Your task to perform on an android device: Clear the shopping cart on newegg. Add "macbook air" to the cart on newegg Image 0: 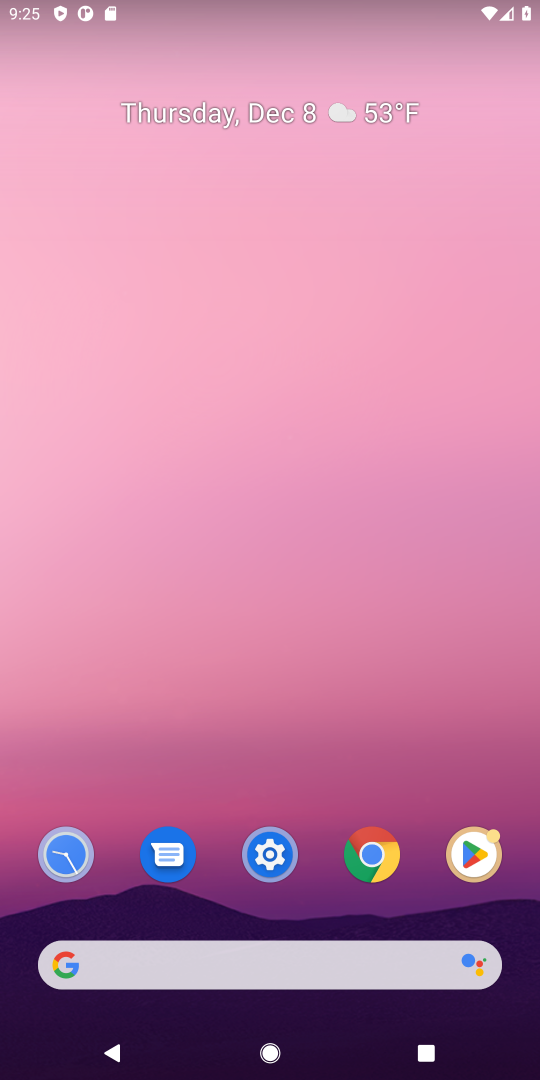
Step 0: press home button
Your task to perform on an android device: Clear the shopping cart on newegg. Add "macbook air" to the cart on newegg Image 1: 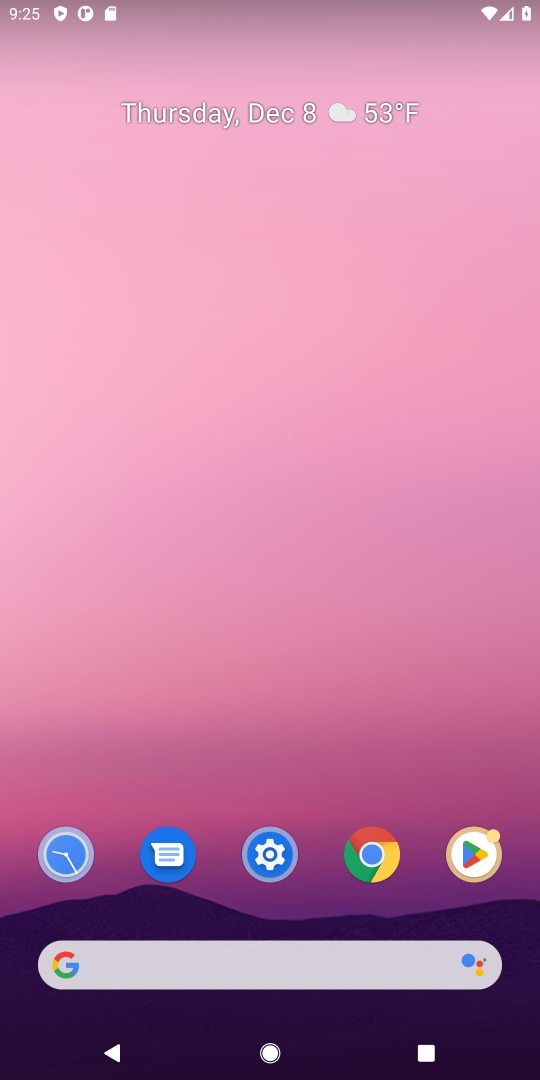
Step 1: click (107, 965)
Your task to perform on an android device: Clear the shopping cart on newegg. Add "macbook air" to the cart on newegg Image 2: 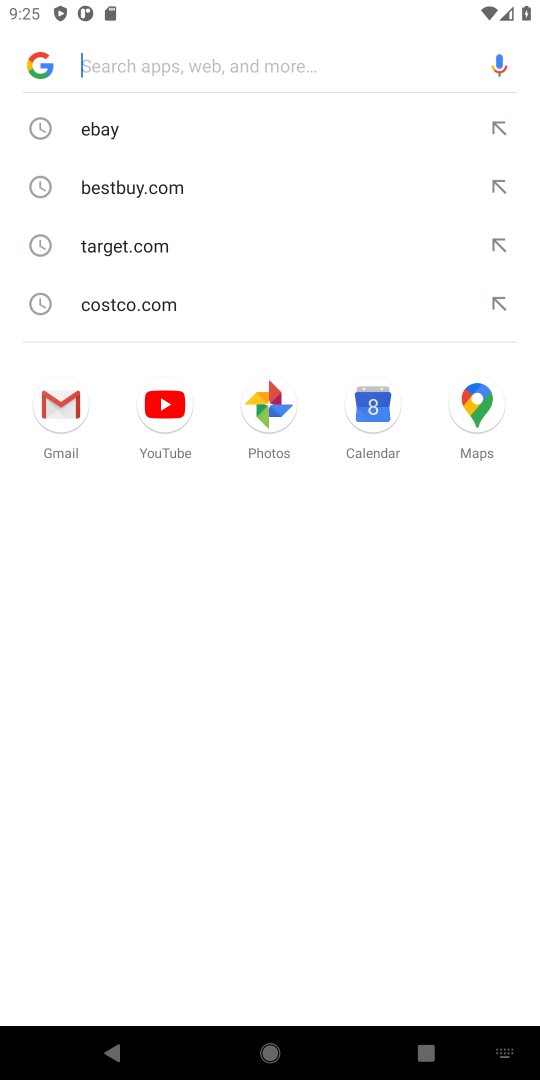
Step 2: type "newegg"
Your task to perform on an android device: Clear the shopping cart on newegg. Add "macbook air" to the cart on newegg Image 3: 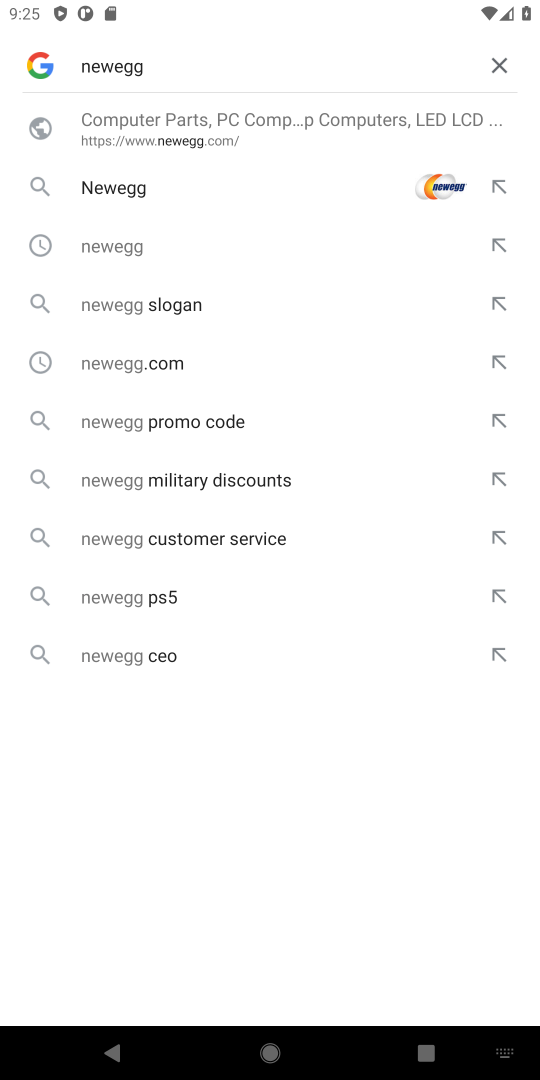
Step 3: press enter
Your task to perform on an android device: Clear the shopping cart on newegg. Add "macbook air" to the cart on newegg Image 4: 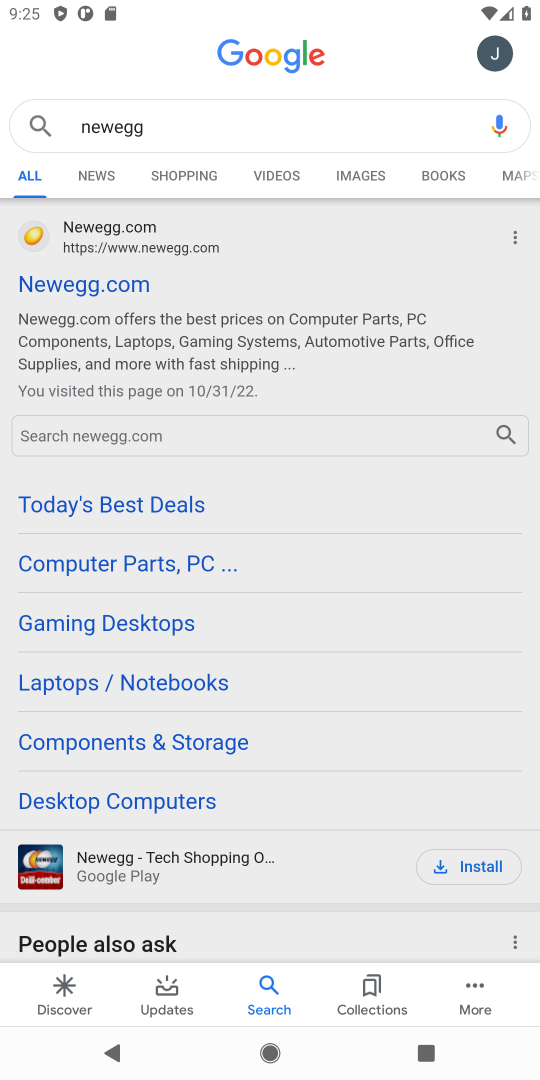
Step 4: click (110, 292)
Your task to perform on an android device: Clear the shopping cart on newegg. Add "macbook air" to the cart on newegg Image 5: 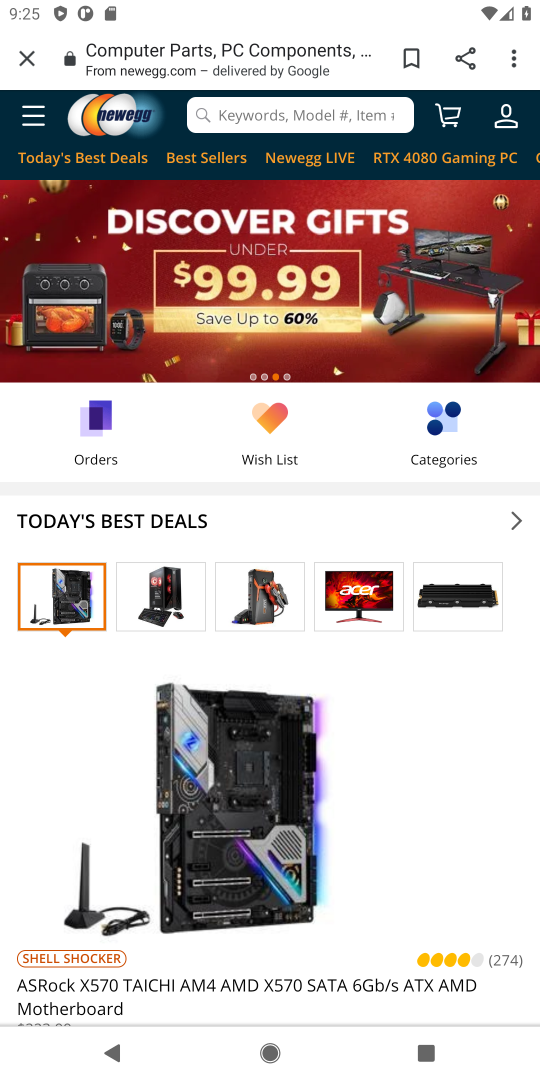
Step 5: click (443, 117)
Your task to perform on an android device: Clear the shopping cart on newegg. Add "macbook air" to the cart on newegg Image 6: 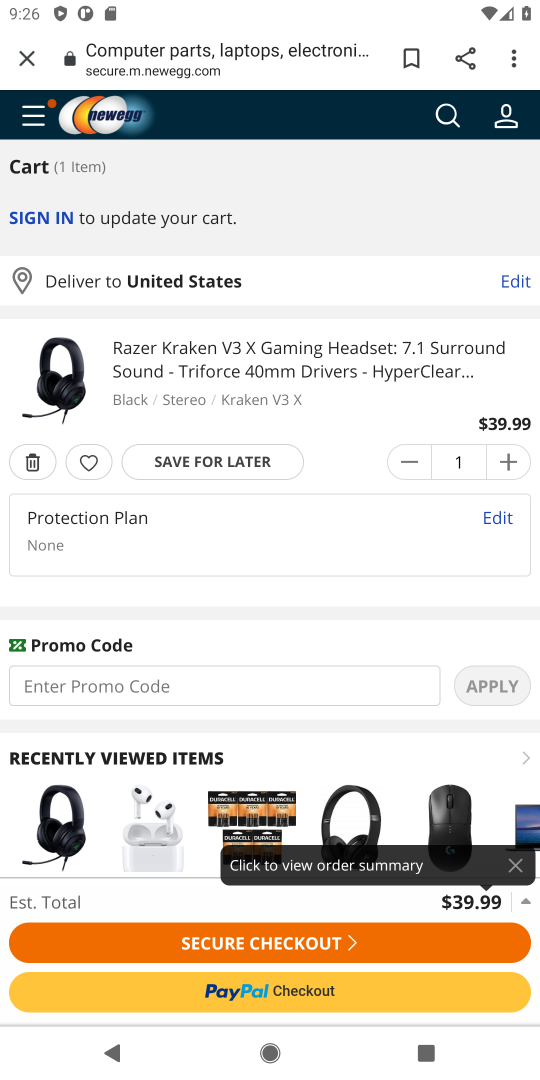
Step 6: click (35, 457)
Your task to perform on an android device: Clear the shopping cart on newegg. Add "macbook air" to the cart on newegg Image 7: 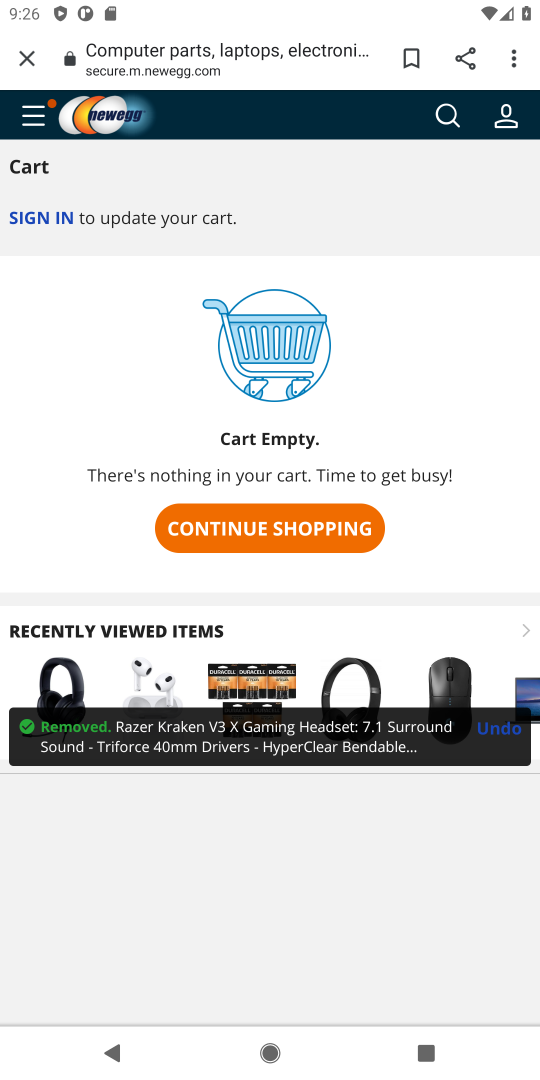
Step 7: click (440, 112)
Your task to perform on an android device: Clear the shopping cart on newegg. Add "macbook air" to the cart on newegg Image 8: 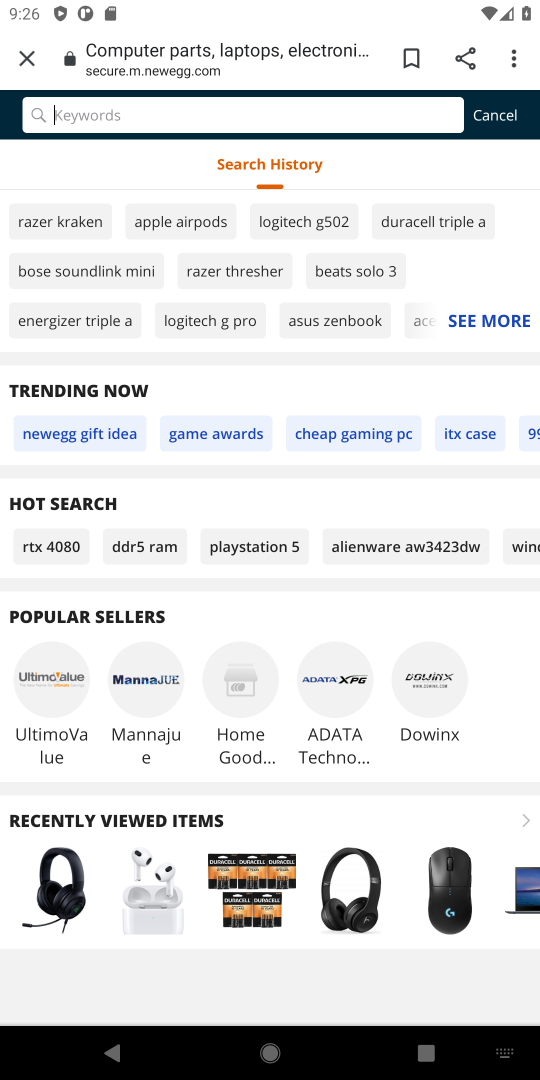
Step 8: press enter
Your task to perform on an android device: Clear the shopping cart on newegg. Add "macbook air" to the cart on newegg Image 9: 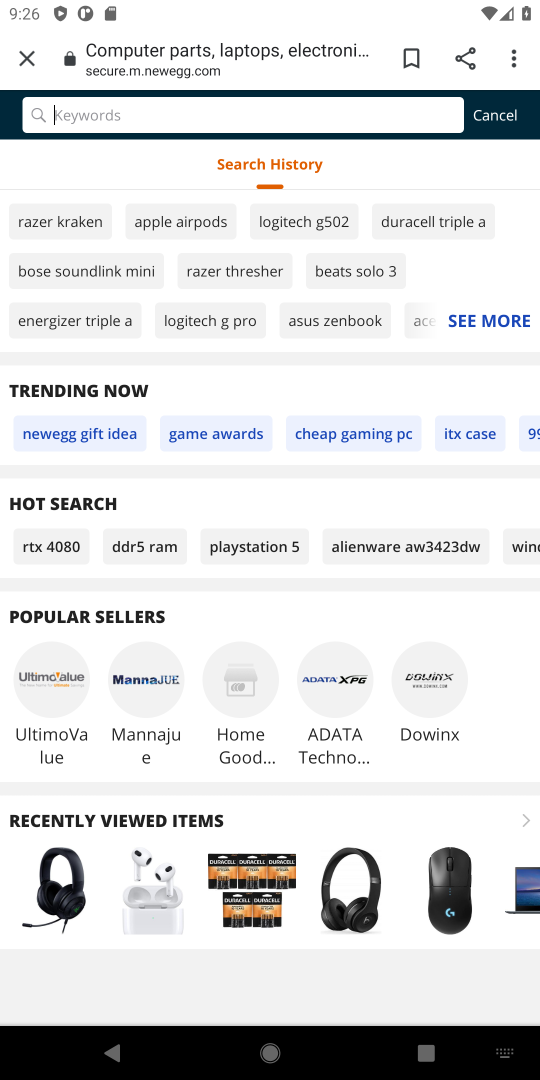
Step 9: type "macbook air"
Your task to perform on an android device: Clear the shopping cart on newegg. Add "macbook air" to the cart on newegg Image 10: 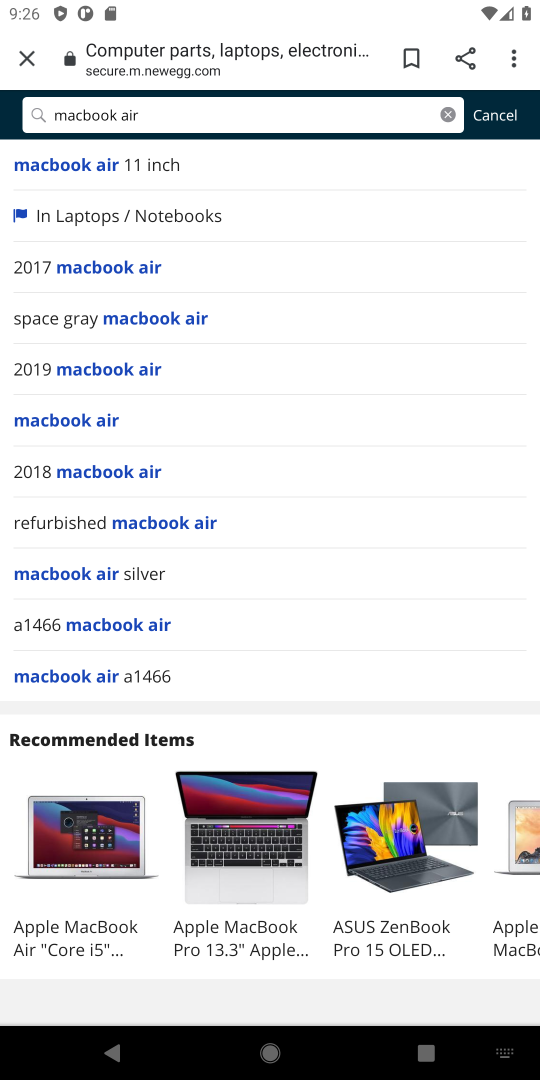
Step 10: press enter
Your task to perform on an android device: Clear the shopping cart on newegg. Add "macbook air" to the cart on newegg Image 11: 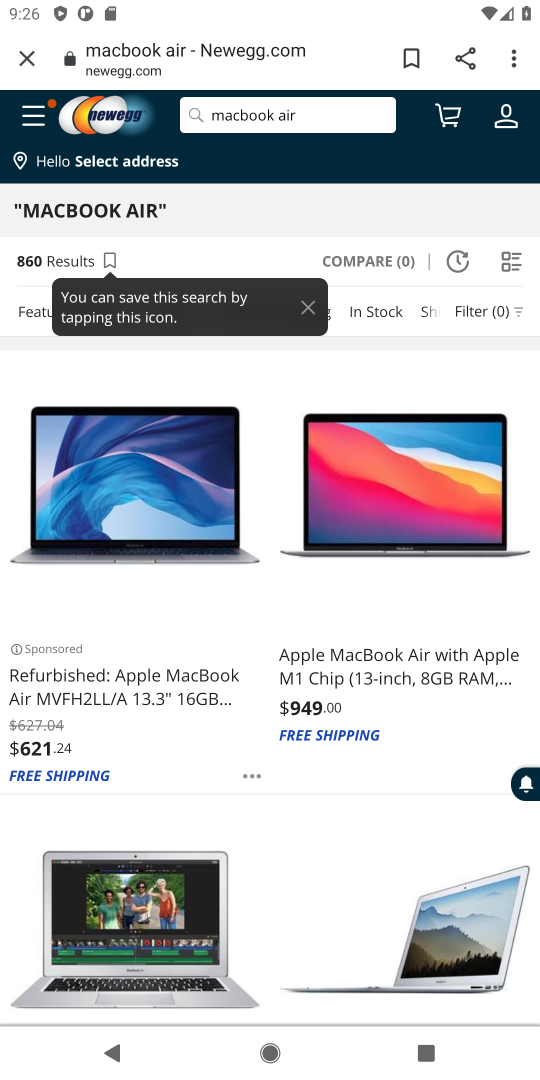
Step 11: click (372, 679)
Your task to perform on an android device: Clear the shopping cart on newegg. Add "macbook air" to the cart on newegg Image 12: 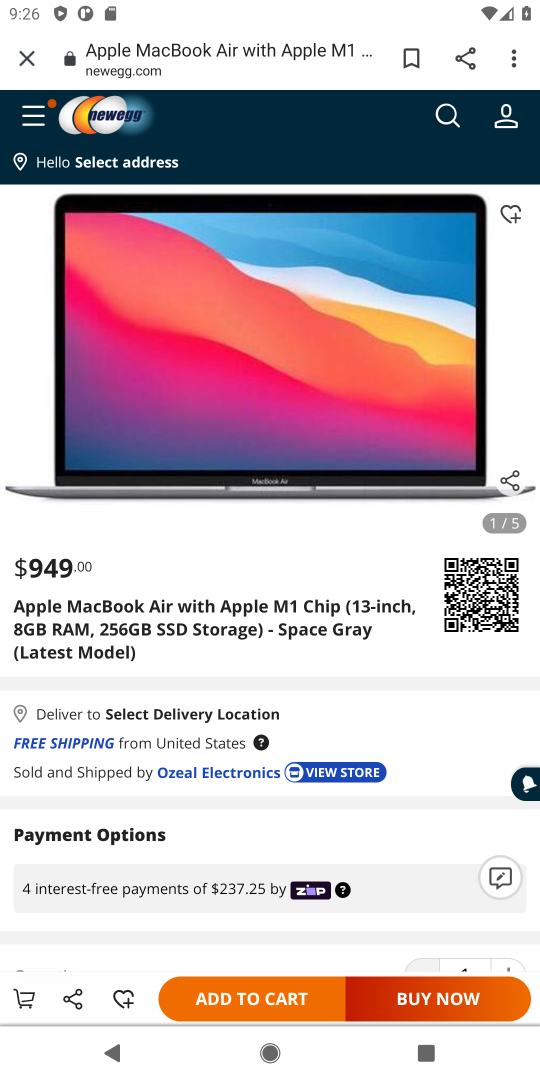
Step 12: drag from (263, 792) to (231, 411)
Your task to perform on an android device: Clear the shopping cart on newegg. Add "macbook air" to the cart on newegg Image 13: 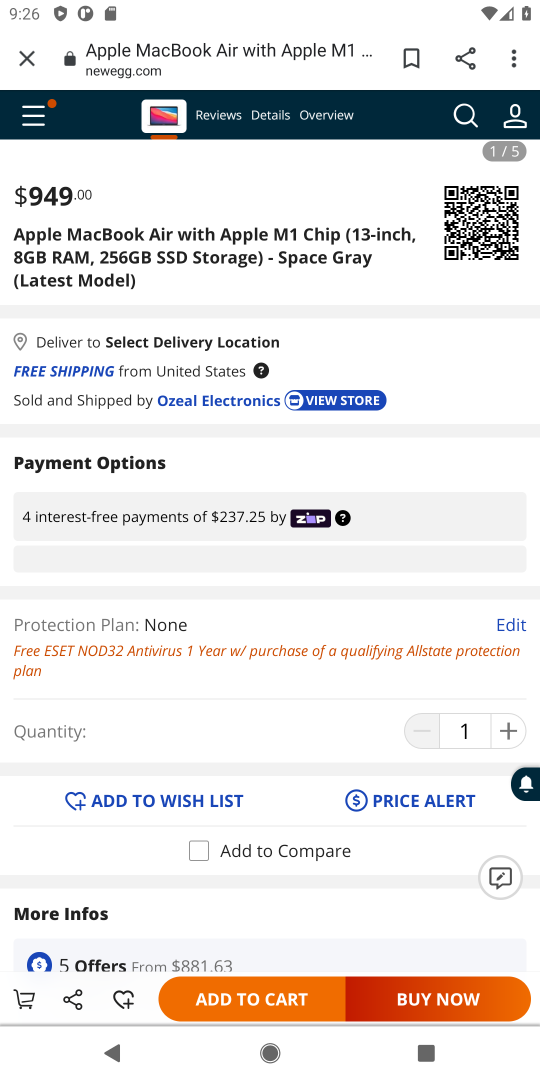
Step 13: click (216, 998)
Your task to perform on an android device: Clear the shopping cart on newegg. Add "macbook air" to the cart on newegg Image 14: 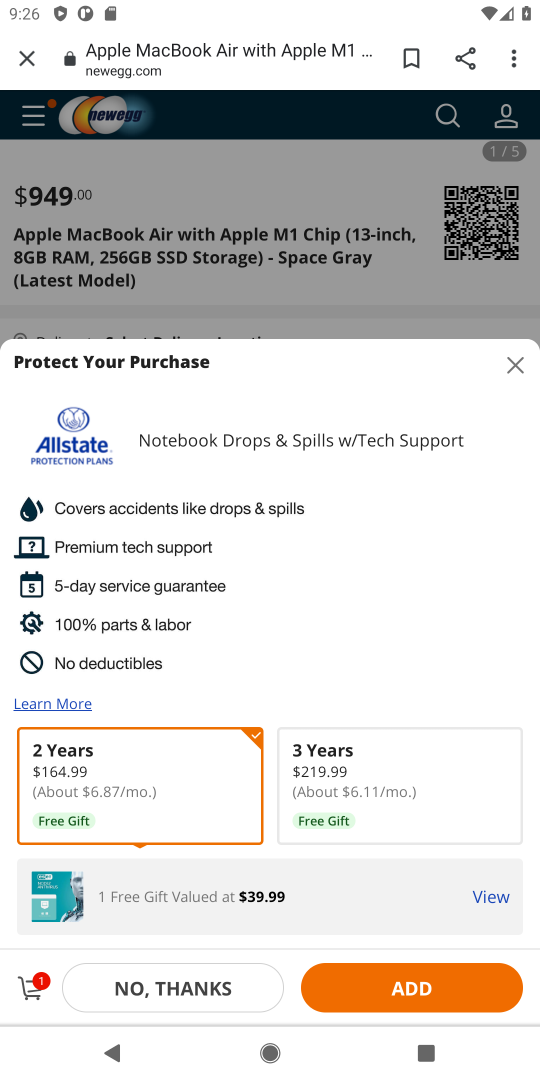
Step 14: click (145, 978)
Your task to perform on an android device: Clear the shopping cart on newegg. Add "macbook air" to the cart on newegg Image 15: 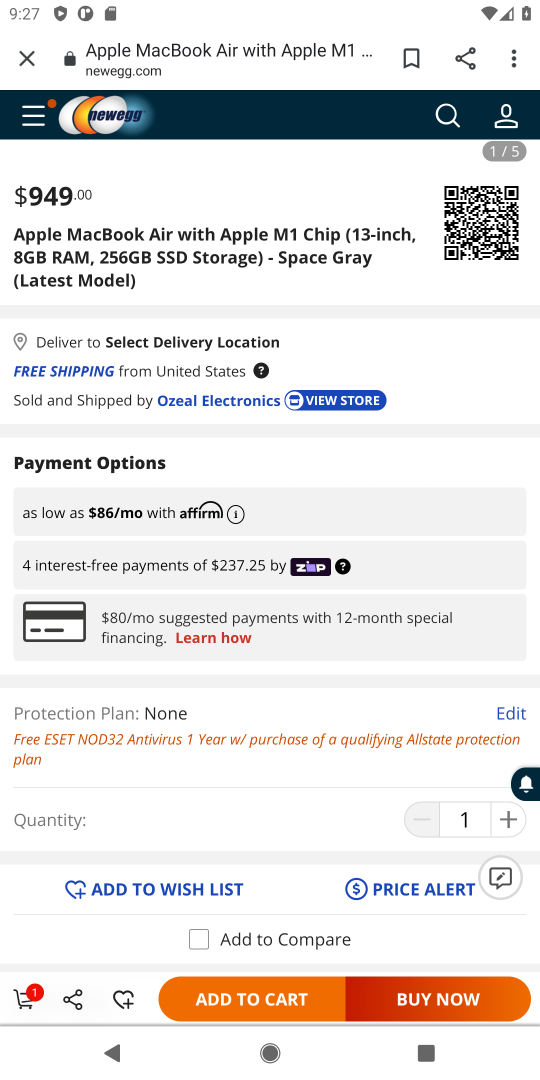
Step 15: task complete